Your task to perform on an android device: Add "bose soundlink mini" to the cart on bestbuy, then select checkout. Image 0: 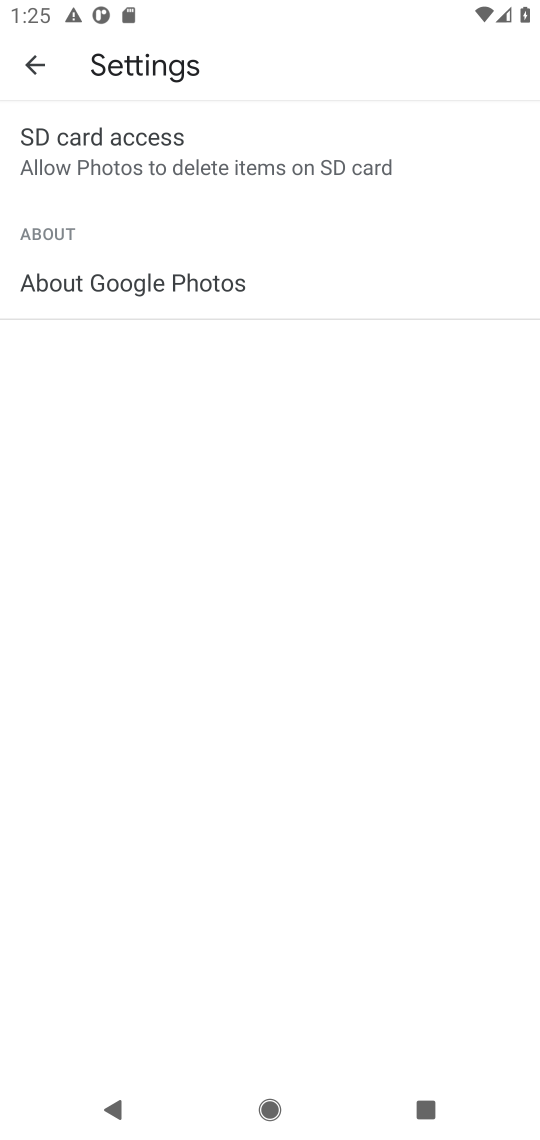
Step 0: press home button
Your task to perform on an android device: Add "bose soundlink mini" to the cart on bestbuy, then select checkout. Image 1: 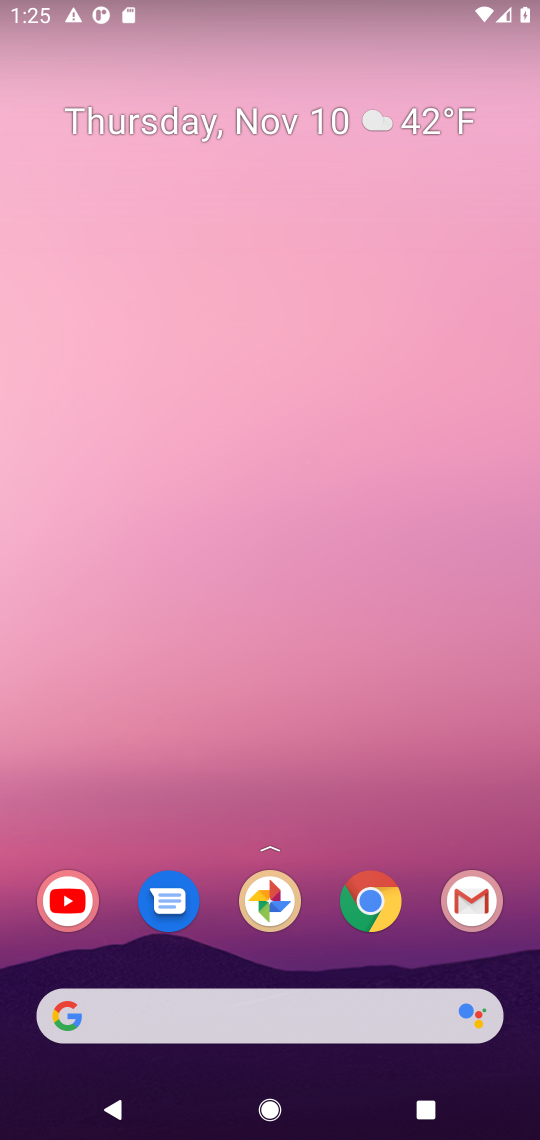
Step 1: drag from (219, 1028) to (125, 167)
Your task to perform on an android device: Add "bose soundlink mini" to the cart on bestbuy, then select checkout. Image 2: 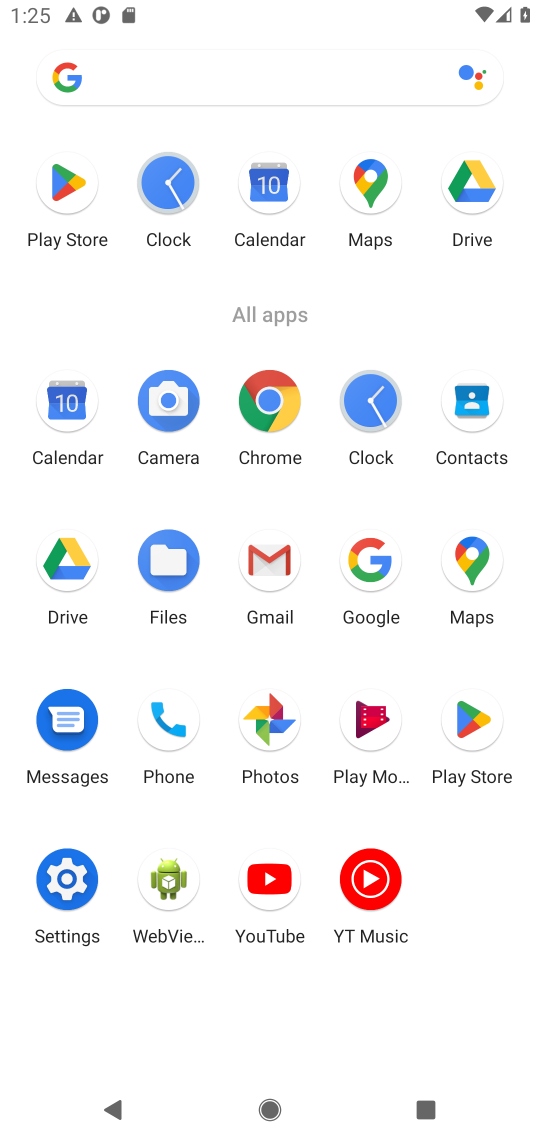
Step 2: click (256, 397)
Your task to perform on an android device: Add "bose soundlink mini" to the cart on bestbuy, then select checkout. Image 3: 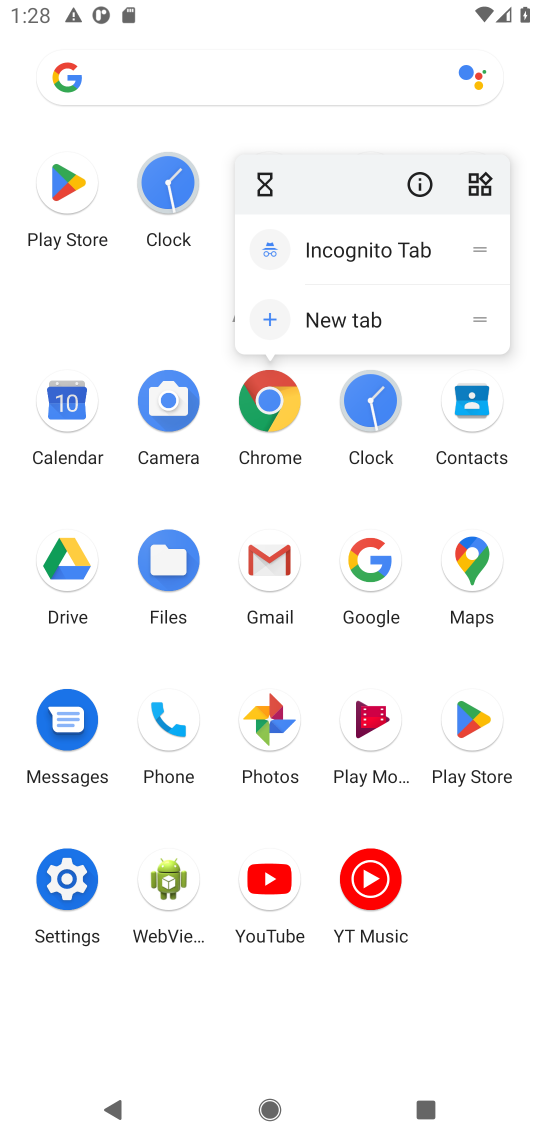
Step 3: click (289, 398)
Your task to perform on an android device: Add "bose soundlink mini" to the cart on bestbuy, then select checkout. Image 4: 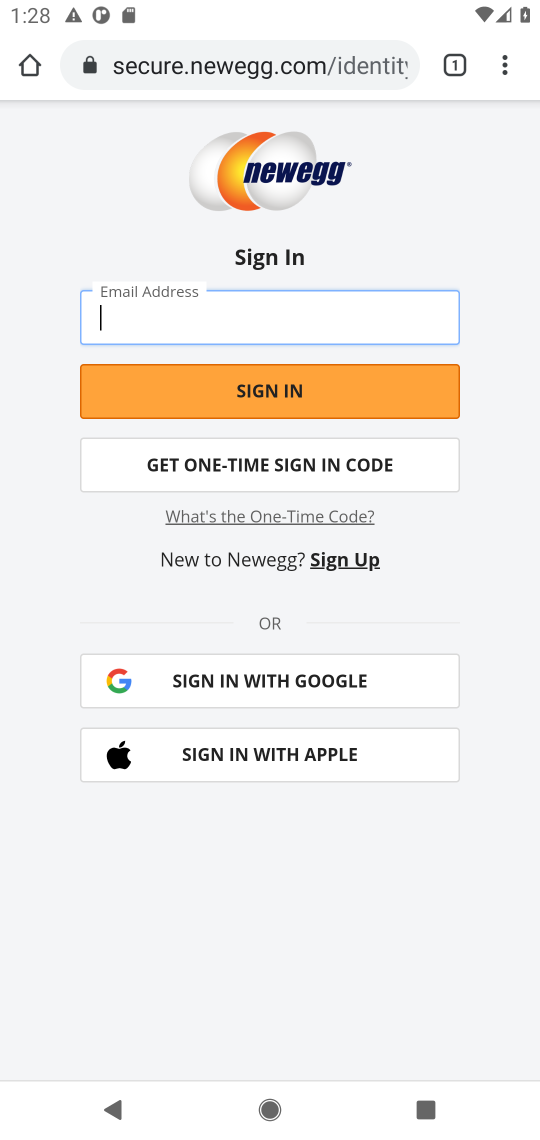
Step 4: click (198, 69)
Your task to perform on an android device: Add "bose soundlink mini" to the cart on bestbuy, then select checkout. Image 5: 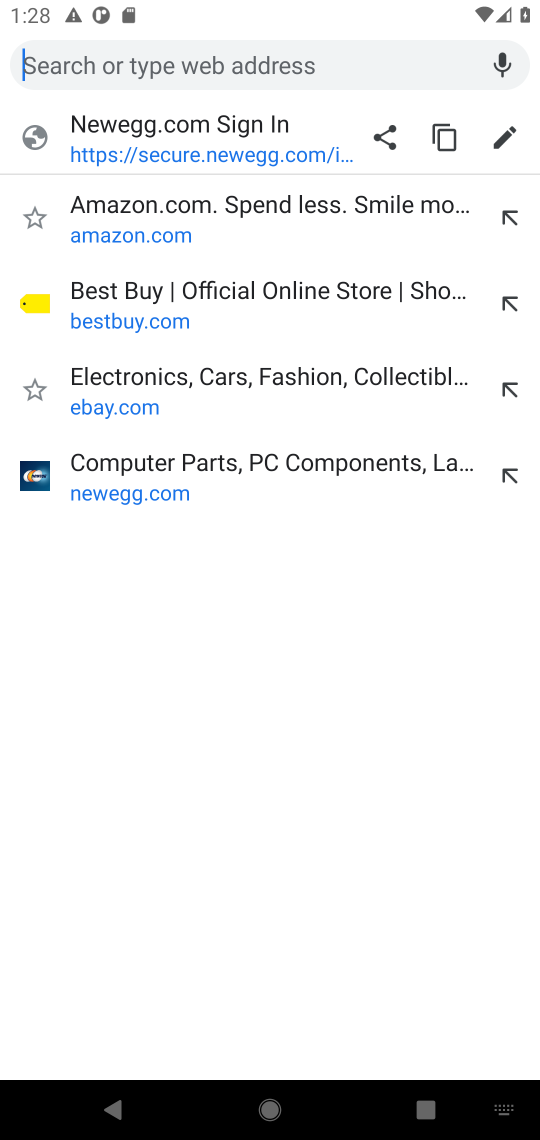
Step 5: type "bestbuy"
Your task to perform on an android device: Add "bose soundlink mini" to the cart on bestbuy, then select checkout. Image 6: 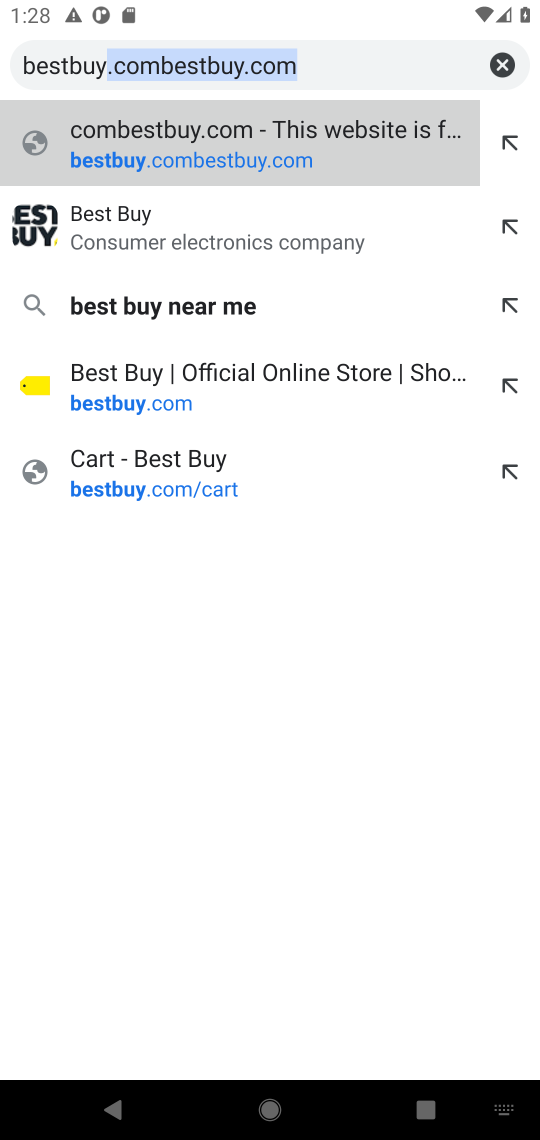
Step 6: press enter
Your task to perform on an android device: Add "bose soundlink mini" to the cart on bestbuy, then select checkout. Image 7: 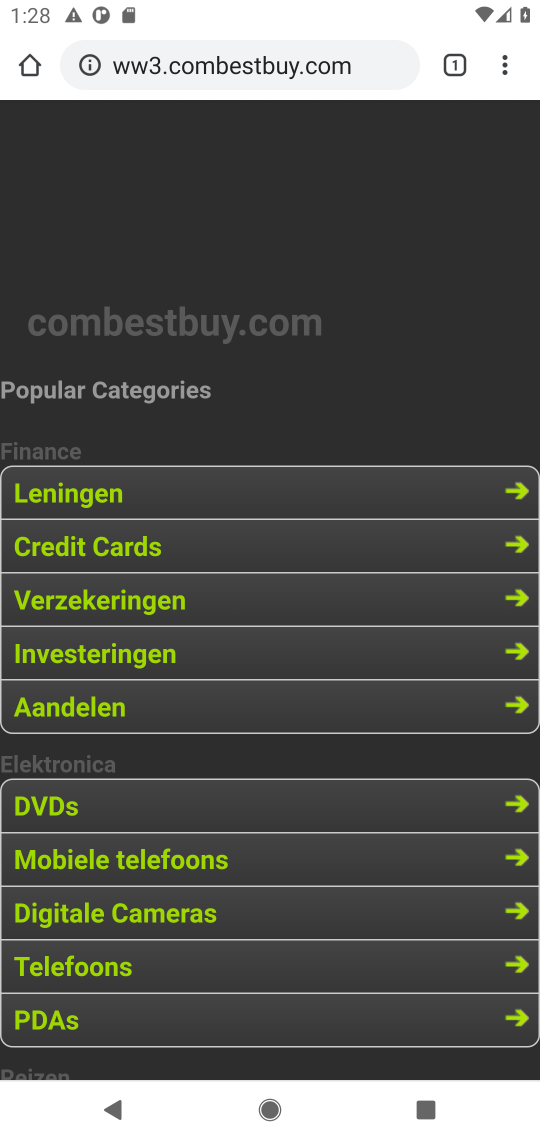
Step 7: task complete